Your task to perform on an android device: turn on wifi Image 0: 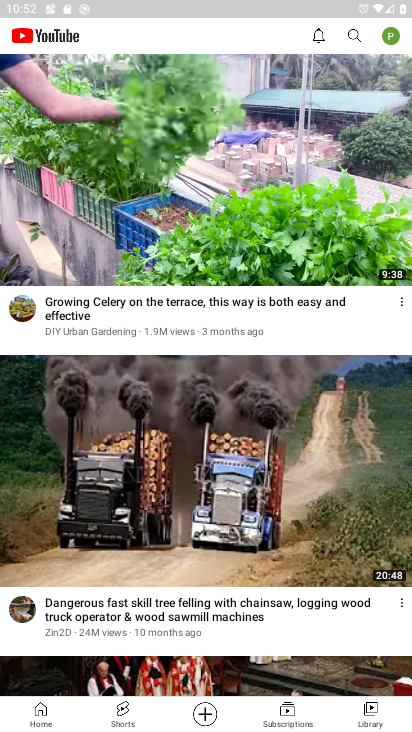
Step 0: task complete